Your task to perform on an android device: Open maps Image 0: 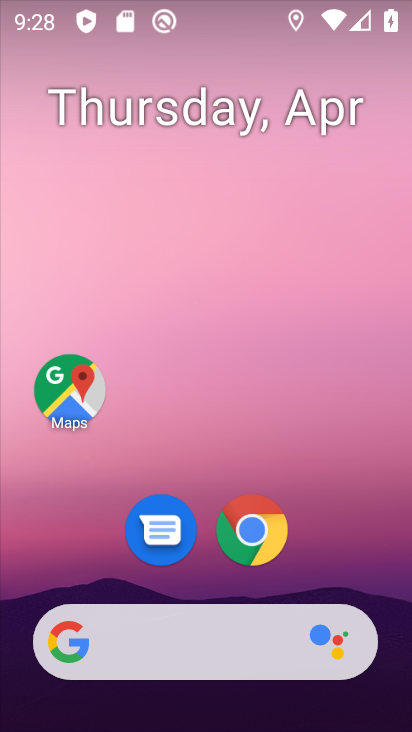
Step 0: drag from (334, 560) to (268, 48)
Your task to perform on an android device: Open maps Image 1: 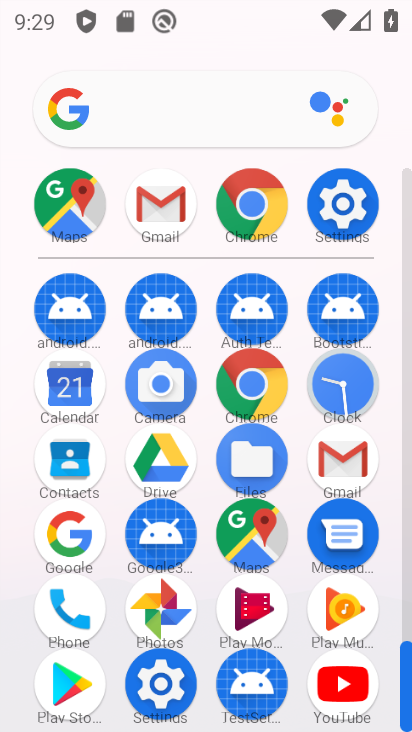
Step 1: click (234, 538)
Your task to perform on an android device: Open maps Image 2: 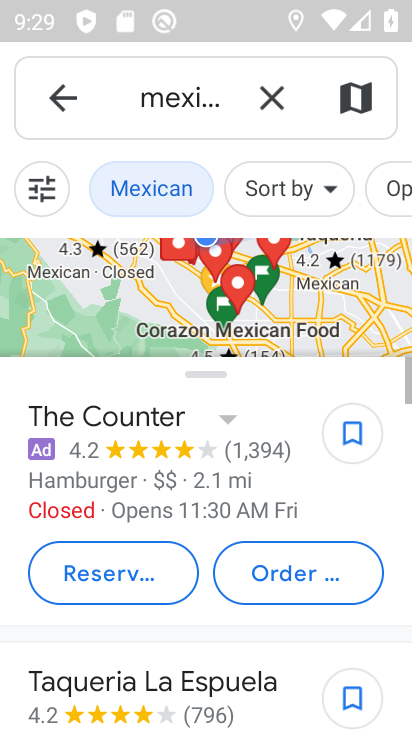
Step 2: click (260, 106)
Your task to perform on an android device: Open maps Image 3: 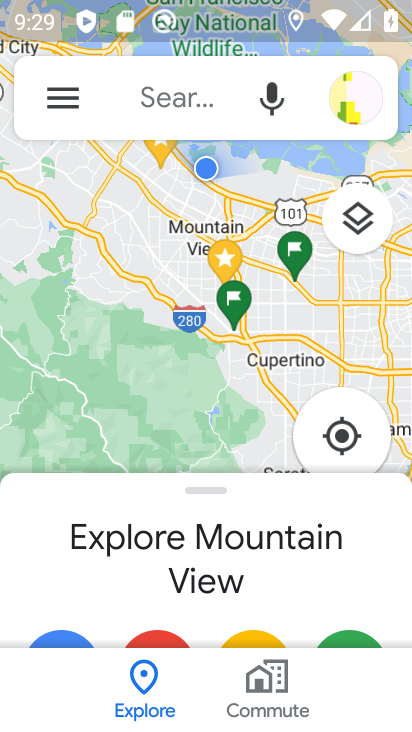
Step 3: task complete